Your task to perform on an android device: Show me popular games on the Play Store Image 0: 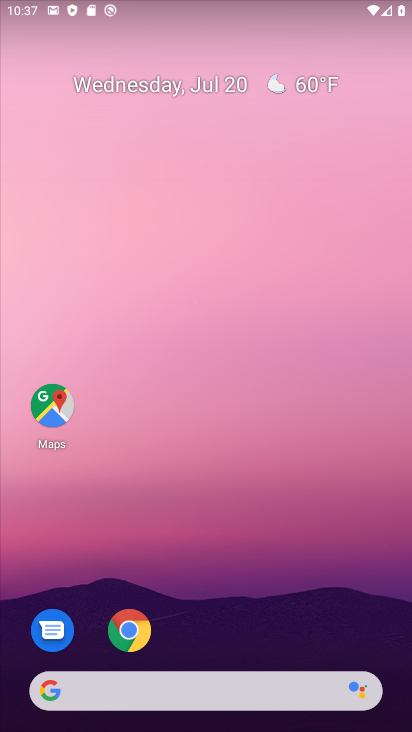
Step 0: drag from (203, 635) to (169, 60)
Your task to perform on an android device: Show me popular games on the Play Store Image 1: 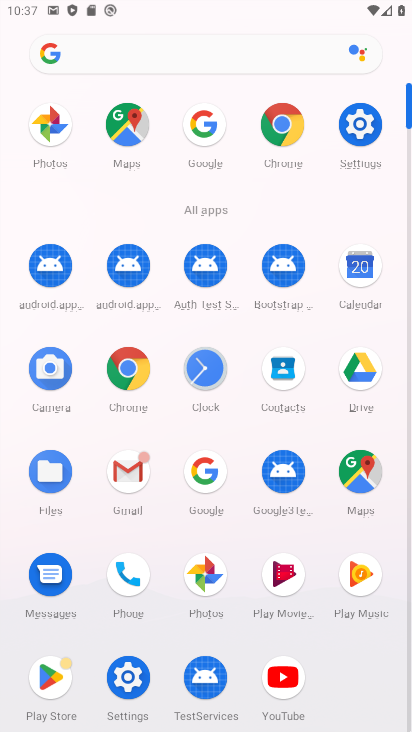
Step 1: click (53, 676)
Your task to perform on an android device: Show me popular games on the Play Store Image 2: 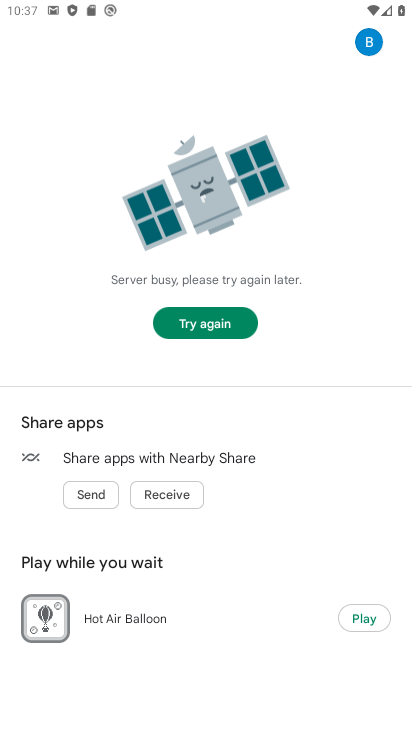
Step 2: task complete